Your task to perform on an android device: Go to Android settings Image 0: 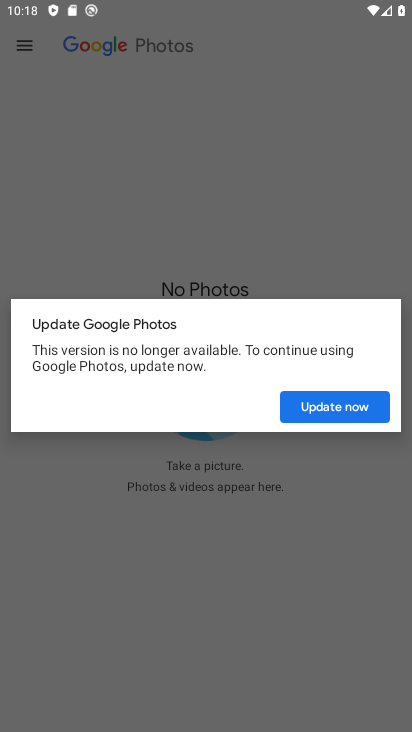
Step 0: press home button
Your task to perform on an android device: Go to Android settings Image 1: 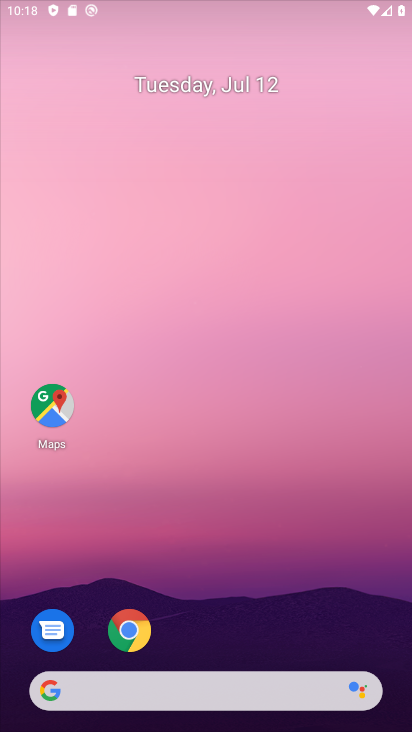
Step 1: drag from (255, 608) to (265, 115)
Your task to perform on an android device: Go to Android settings Image 2: 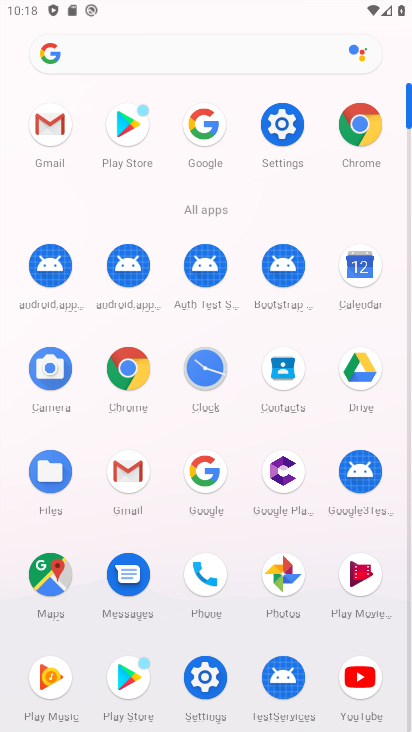
Step 2: click (284, 124)
Your task to perform on an android device: Go to Android settings Image 3: 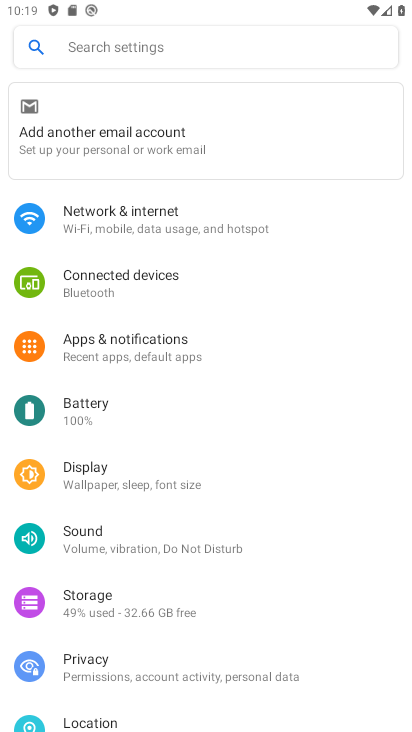
Step 3: task complete